Your task to perform on an android device: What's the news in Suriname? Image 0: 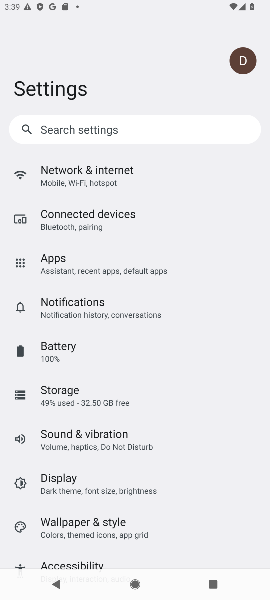
Step 0: press home button
Your task to perform on an android device: What's the news in Suriname? Image 1: 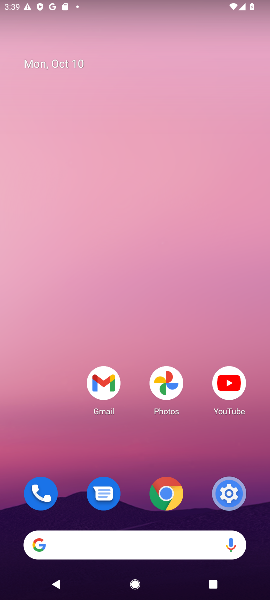
Step 1: click (77, 556)
Your task to perform on an android device: What's the news in Suriname? Image 2: 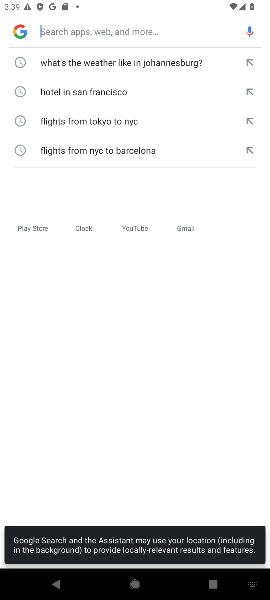
Step 2: type "What's the news in Suriname?"
Your task to perform on an android device: What's the news in Suriname? Image 3: 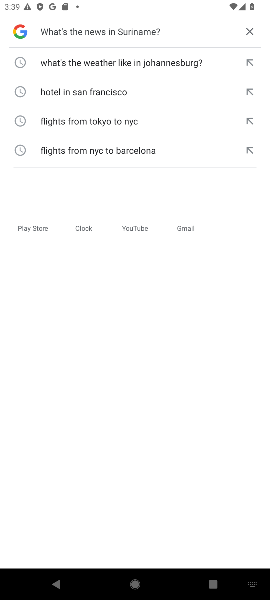
Step 3: click (186, 35)
Your task to perform on an android device: What's the news in Suriname? Image 4: 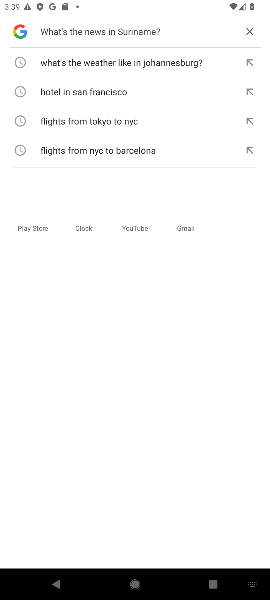
Step 4: task complete